Your task to perform on an android device: allow cookies in the chrome app Image 0: 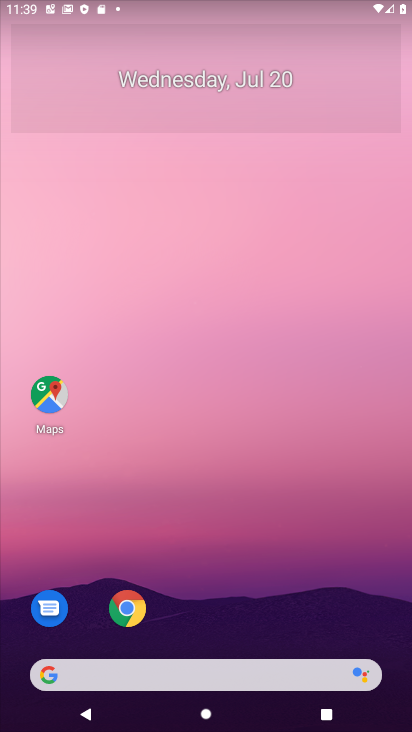
Step 0: press home button
Your task to perform on an android device: allow cookies in the chrome app Image 1: 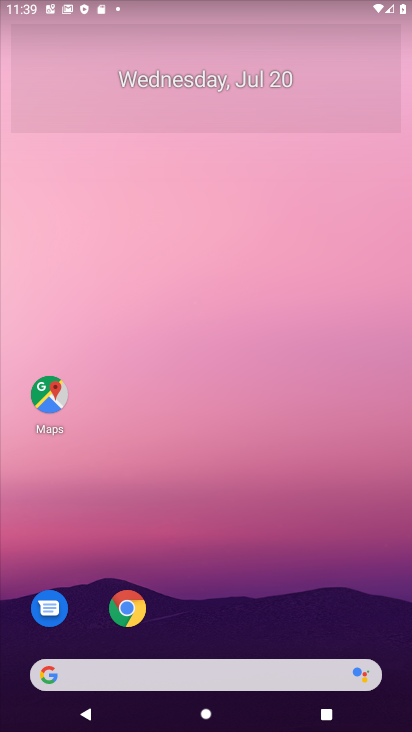
Step 1: click (133, 597)
Your task to perform on an android device: allow cookies in the chrome app Image 2: 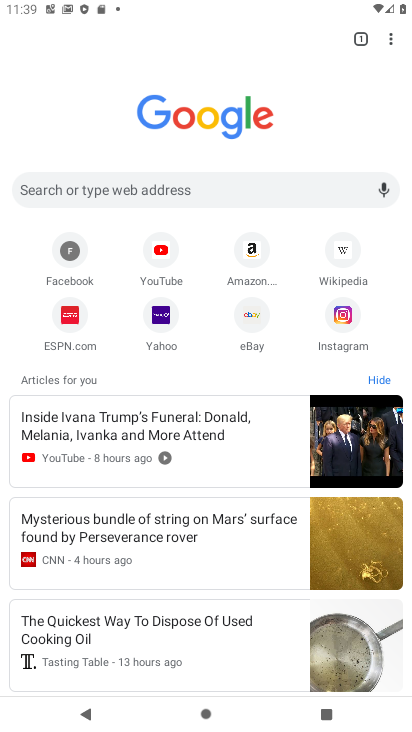
Step 2: click (388, 35)
Your task to perform on an android device: allow cookies in the chrome app Image 3: 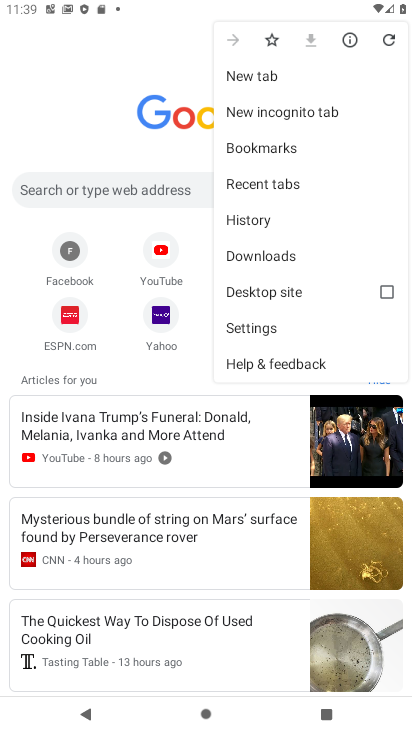
Step 3: click (263, 320)
Your task to perform on an android device: allow cookies in the chrome app Image 4: 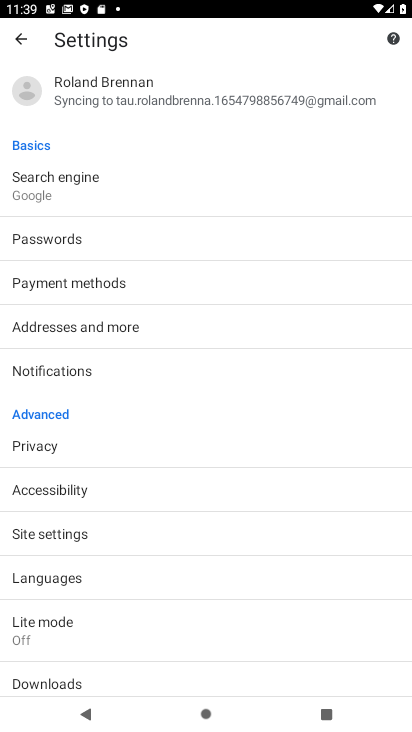
Step 4: click (78, 536)
Your task to perform on an android device: allow cookies in the chrome app Image 5: 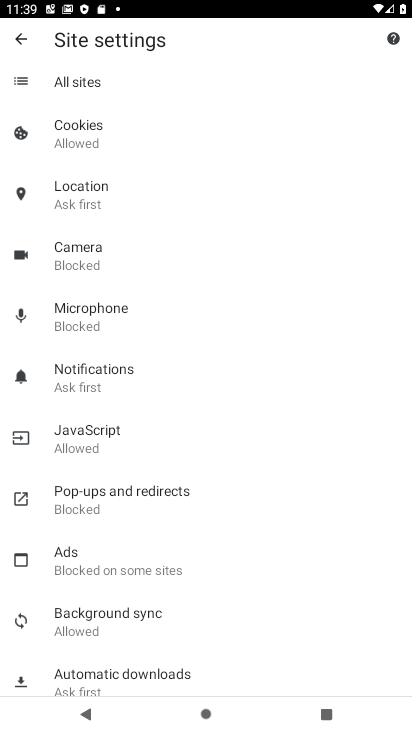
Step 5: click (118, 147)
Your task to perform on an android device: allow cookies in the chrome app Image 6: 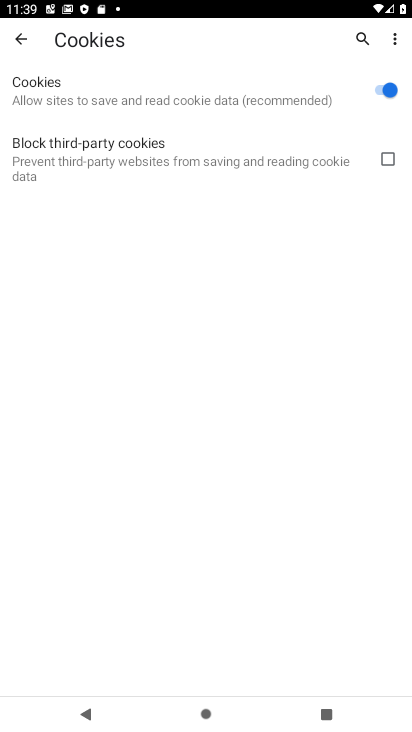
Step 6: task complete